Your task to perform on an android device: add a contact Image 0: 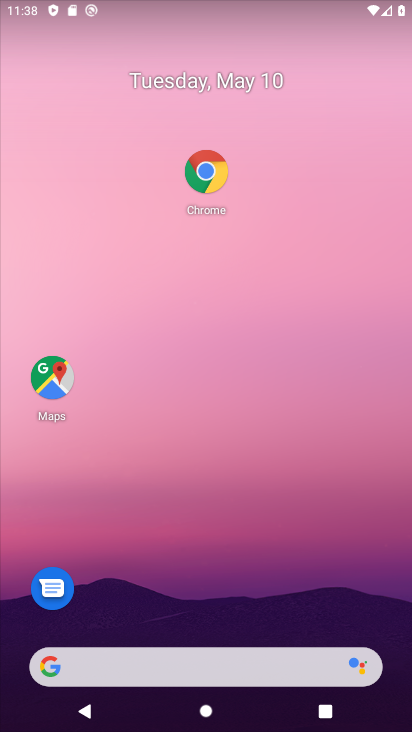
Step 0: drag from (192, 591) to (275, 226)
Your task to perform on an android device: add a contact Image 1: 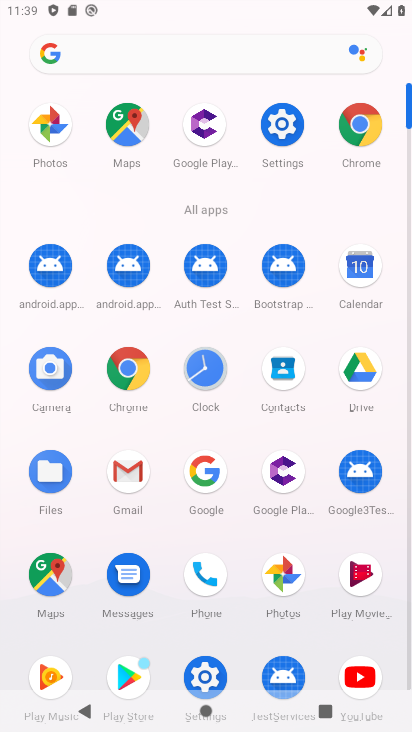
Step 1: click (200, 572)
Your task to perform on an android device: add a contact Image 2: 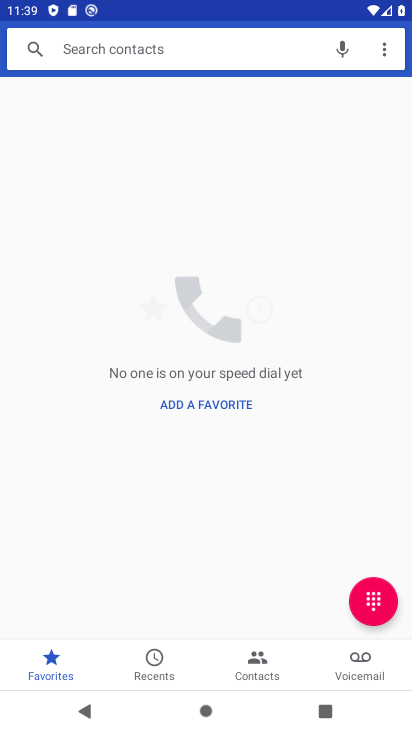
Step 2: click (210, 407)
Your task to perform on an android device: add a contact Image 3: 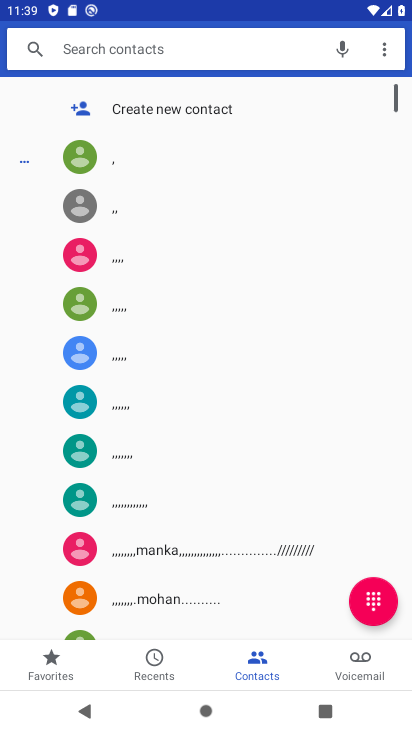
Step 3: click (196, 102)
Your task to perform on an android device: add a contact Image 4: 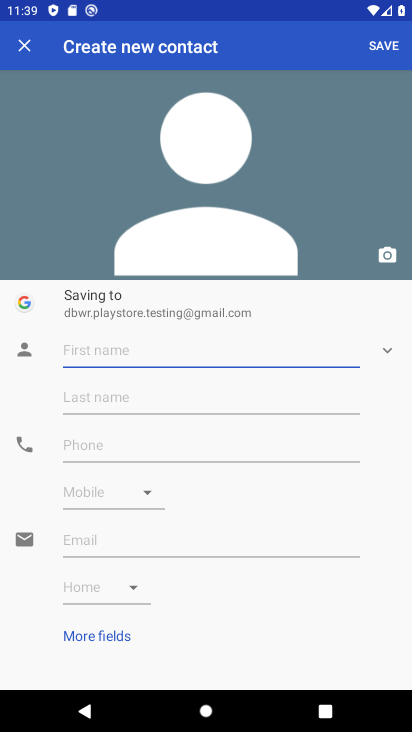
Step 4: click (183, 355)
Your task to perform on an android device: add a contact Image 5: 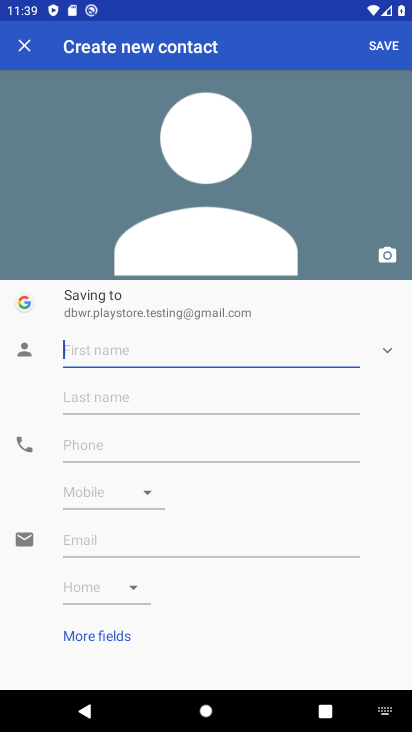
Step 5: type "ggggggggggggg"
Your task to perform on an android device: add a contact Image 6: 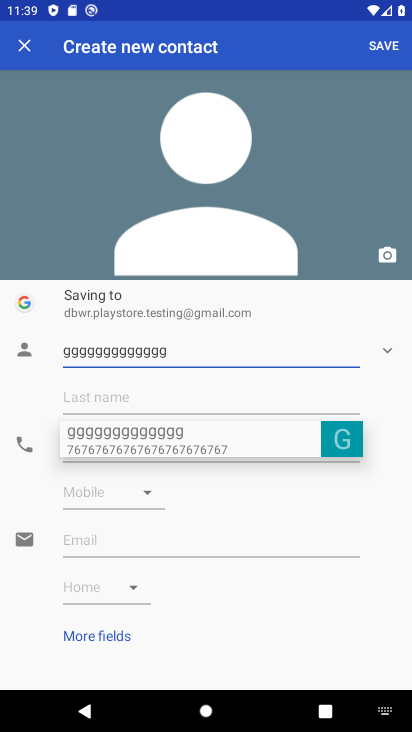
Step 6: click (155, 443)
Your task to perform on an android device: add a contact Image 7: 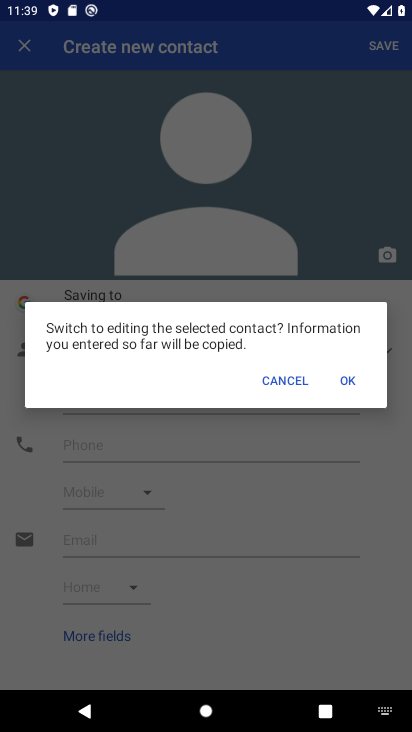
Step 7: click (352, 378)
Your task to perform on an android device: add a contact Image 8: 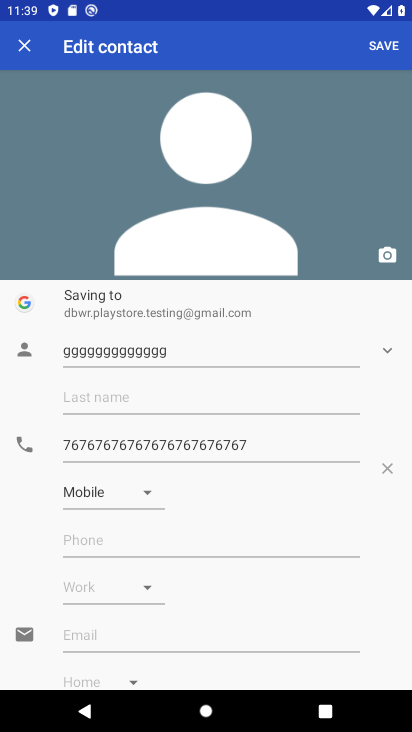
Step 8: click (384, 45)
Your task to perform on an android device: add a contact Image 9: 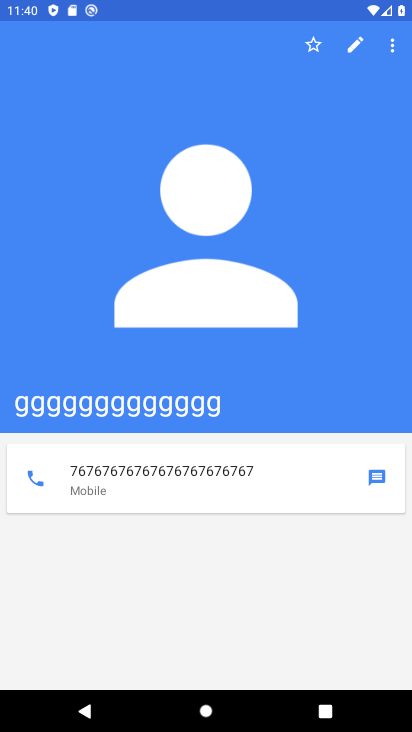
Step 9: task complete